Your task to perform on an android device: check android version Image 0: 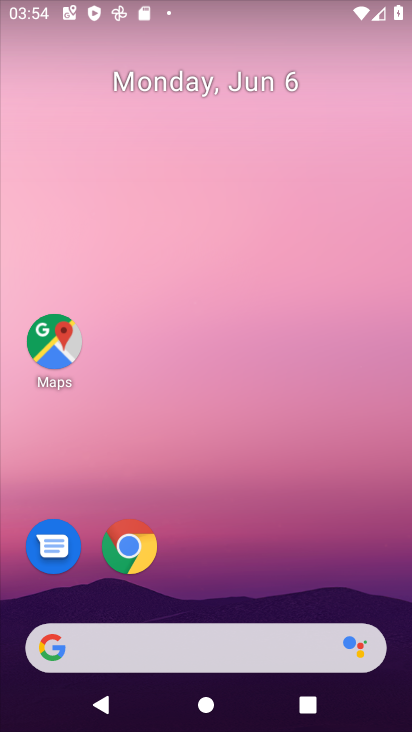
Step 0: drag from (237, 604) to (53, 8)
Your task to perform on an android device: check android version Image 1: 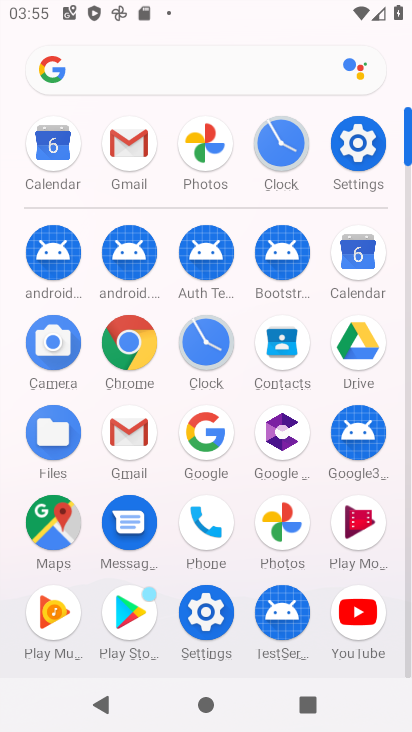
Step 1: click (333, 134)
Your task to perform on an android device: check android version Image 2: 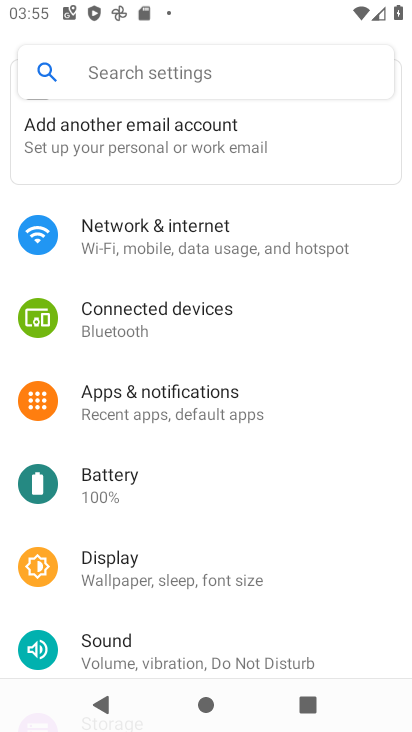
Step 2: drag from (216, 646) to (181, 22)
Your task to perform on an android device: check android version Image 3: 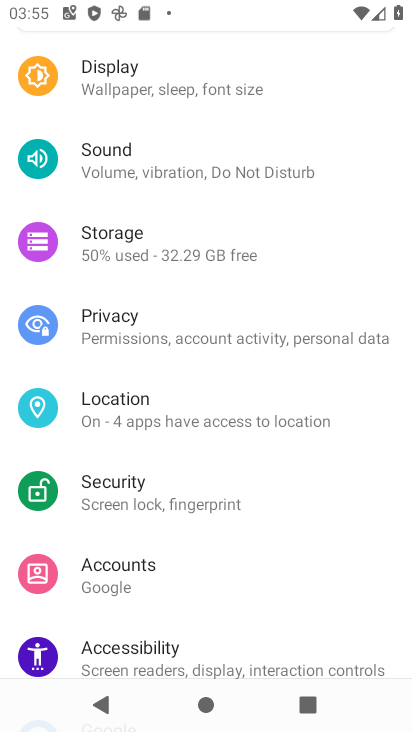
Step 3: drag from (225, 625) to (321, 6)
Your task to perform on an android device: check android version Image 4: 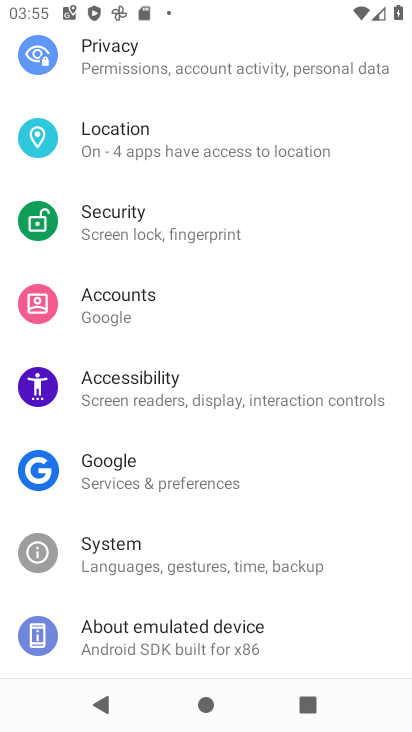
Step 4: click (206, 635)
Your task to perform on an android device: check android version Image 5: 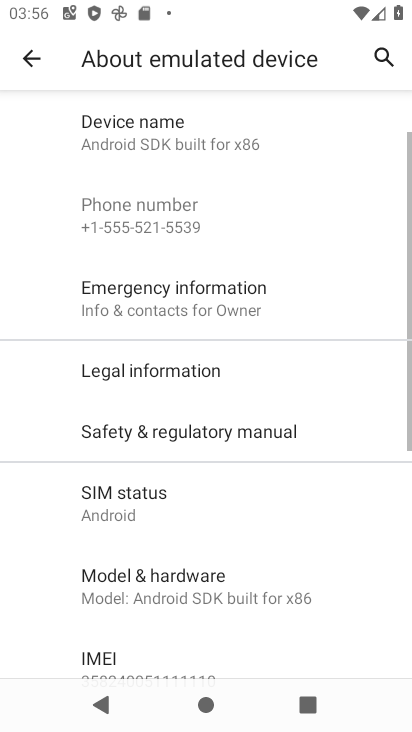
Step 5: drag from (191, 643) to (205, 534)
Your task to perform on an android device: check android version Image 6: 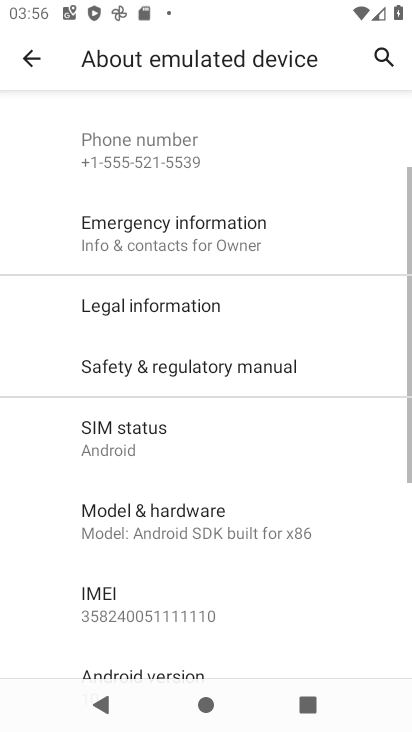
Step 6: drag from (175, 576) to (179, 358)
Your task to perform on an android device: check android version Image 7: 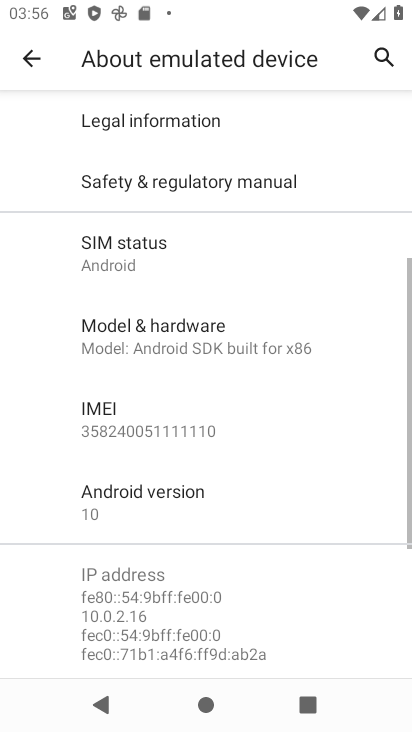
Step 7: click (159, 518)
Your task to perform on an android device: check android version Image 8: 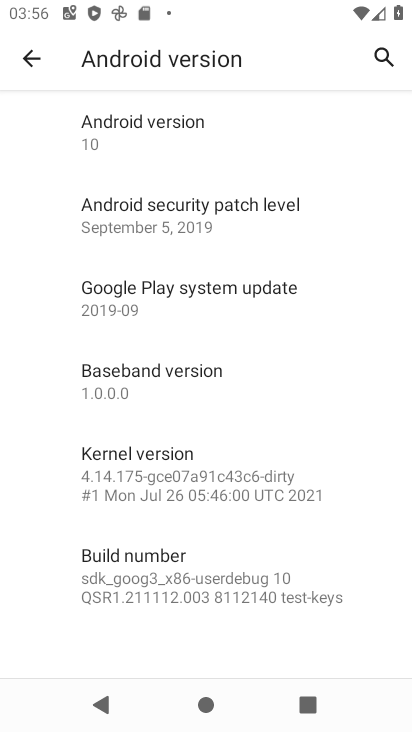
Step 8: task complete